Your task to perform on an android device: Go to Google maps Image 0: 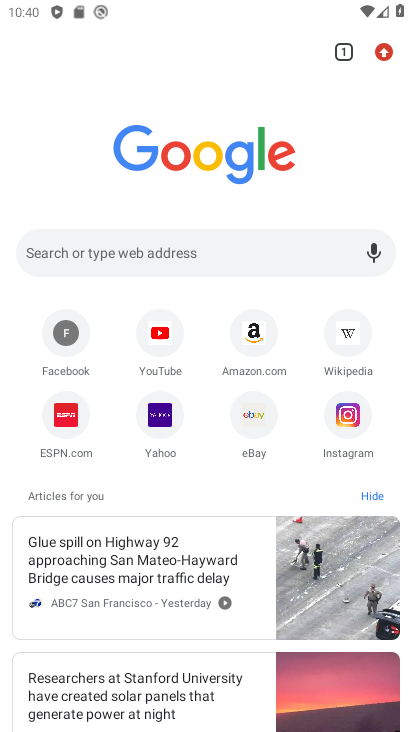
Step 0: press home button
Your task to perform on an android device: Go to Google maps Image 1: 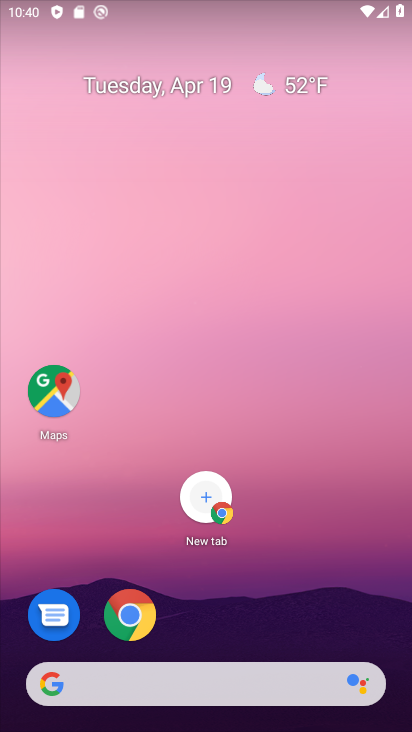
Step 1: click (58, 396)
Your task to perform on an android device: Go to Google maps Image 2: 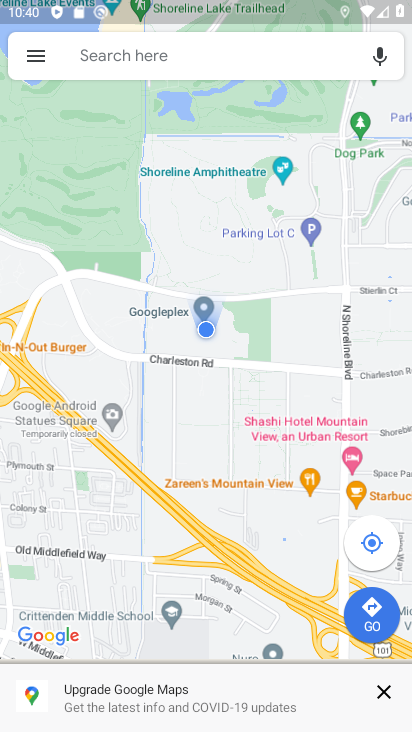
Step 2: task complete